Your task to perform on an android device: Open Yahoo.com Image 0: 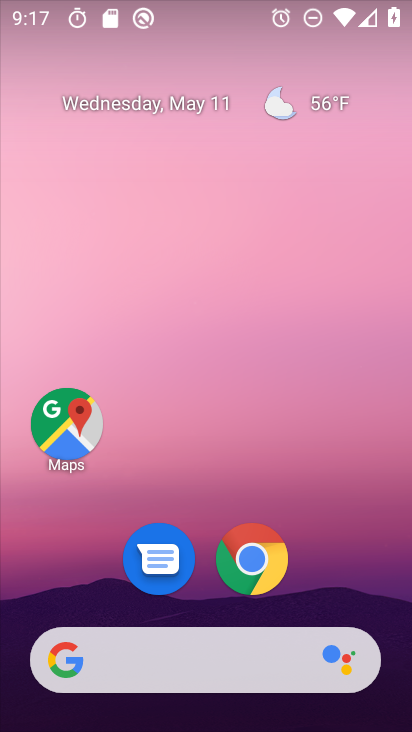
Step 0: click (269, 568)
Your task to perform on an android device: Open Yahoo.com Image 1: 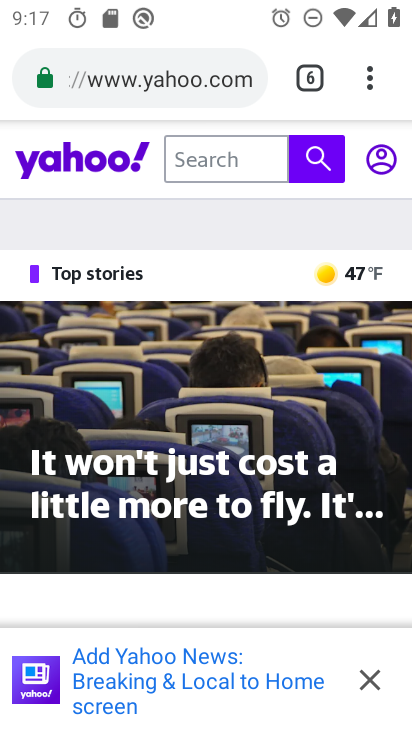
Step 1: task complete